Your task to perform on an android device: change the clock display to digital Image 0: 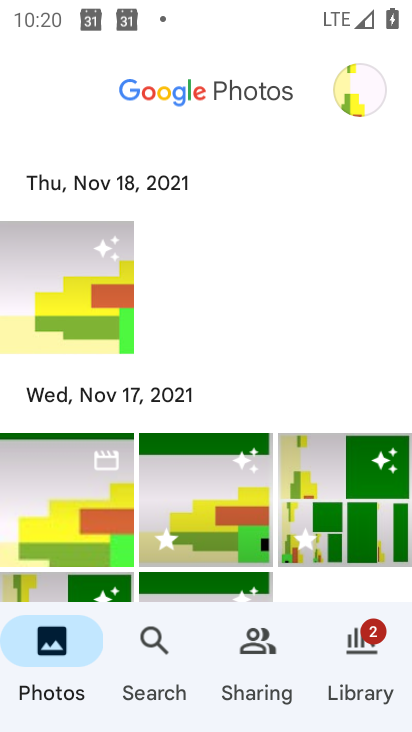
Step 0: press home button
Your task to perform on an android device: change the clock display to digital Image 1: 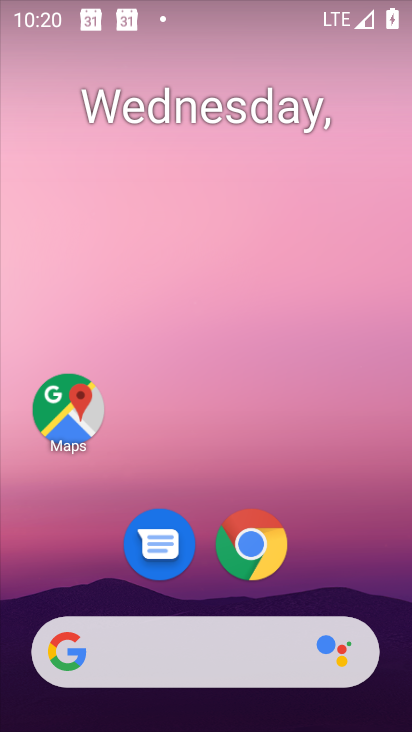
Step 1: drag from (308, 582) to (264, 0)
Your task to perform on an android device: change the clock display to digital Image 2: 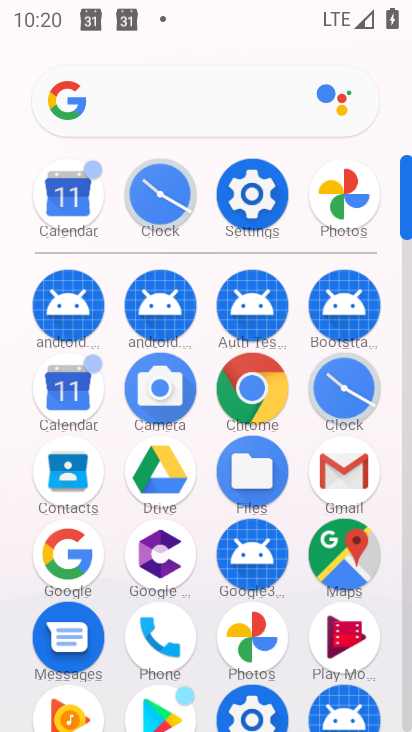
Step 2: click (333, 378)
Your task to perform on an android device: change the clock display to digital Image 3: 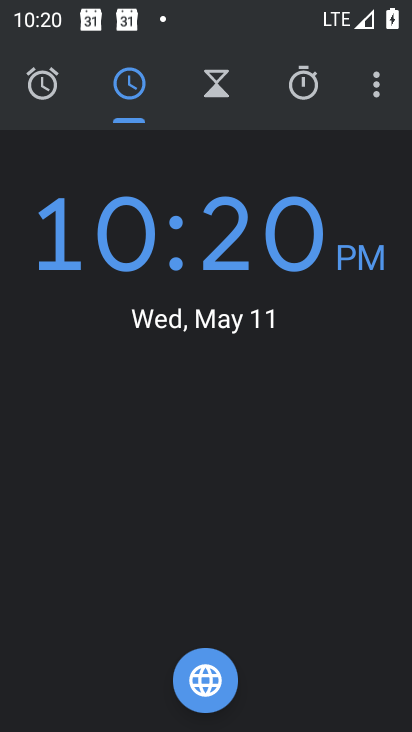
Step 3: click (368, 103)
Your task to perform on an android device: change the clock display to digital Image 4: 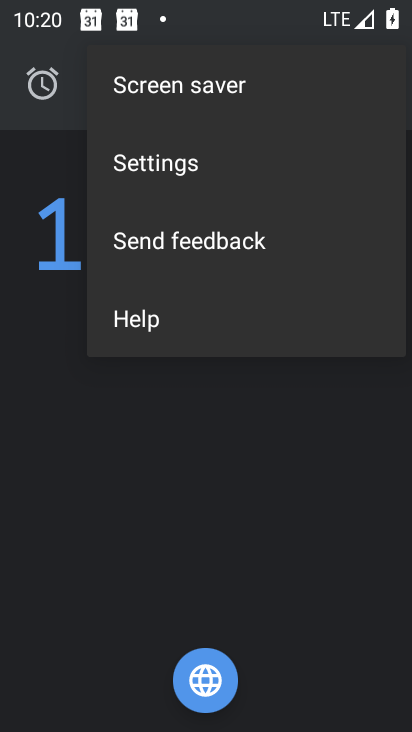
Step 4: click (311, 171)
Your task to perform on an android device: change the clock display to digital Image 5: 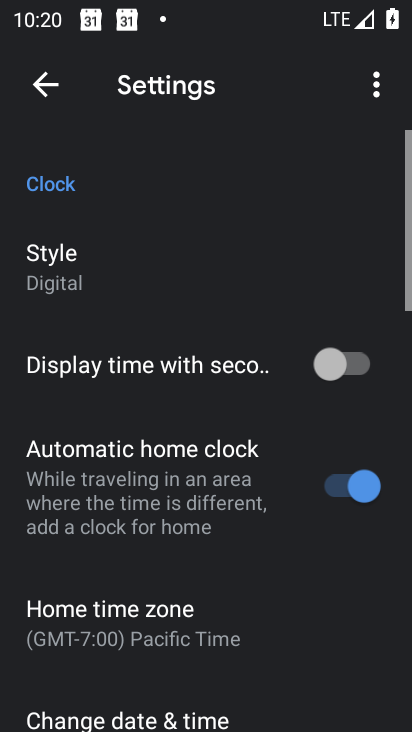
Step 5: click (74, 286)
Your task to perform on an android device: change the clock display to digital Image 6: 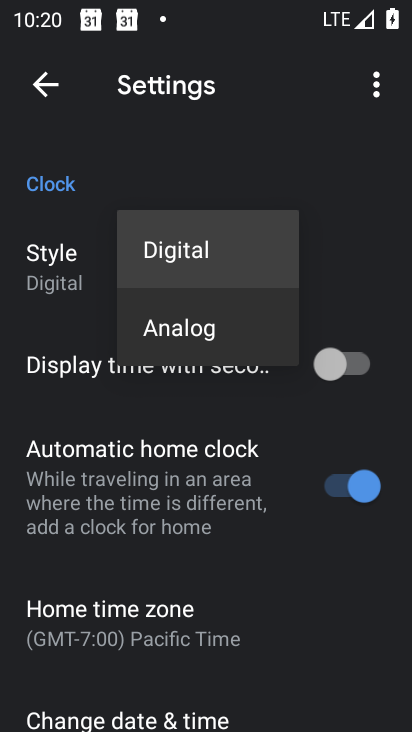
Step 6: click (198, 243)
Your task to perform on an android device: change the clock display to digital Image 7: 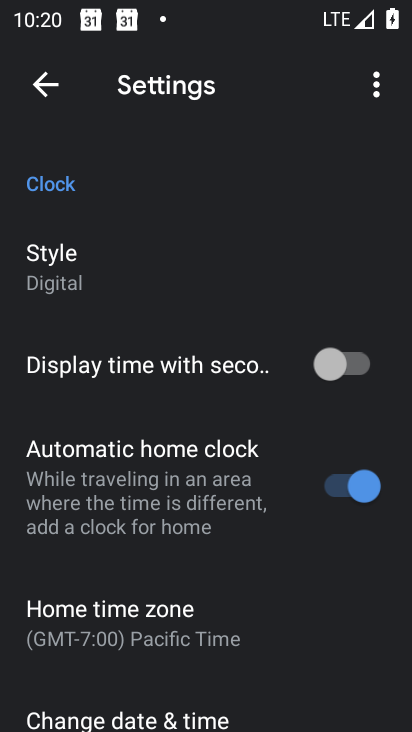
Step 7: task complete